Your task to perform on an android device: turn off improve location accuracy Image 0: 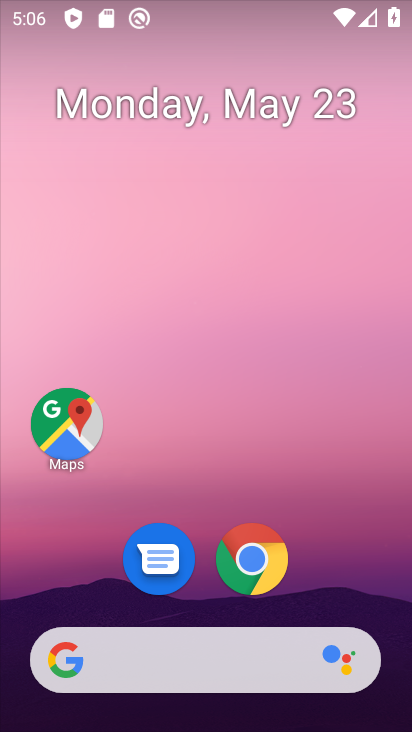
Step 0: drag from (211, 626) to (348, 40)
Your task to perform on an android device: turn off improve location accuracy Image 1: 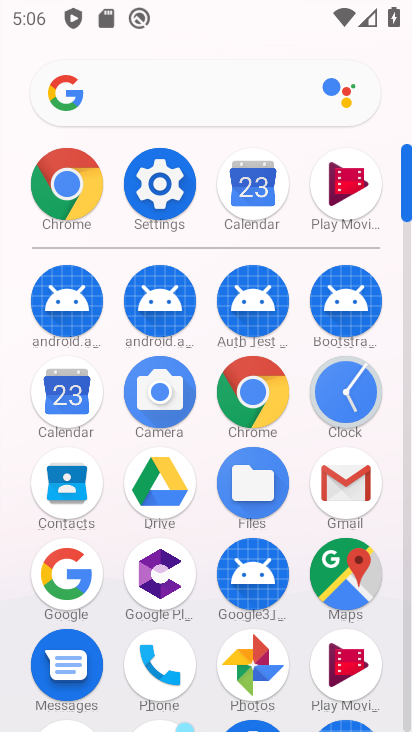
Step 1: click (147, 177)
Your task to perform on an android device: turn off improve location accuracy Image 2: 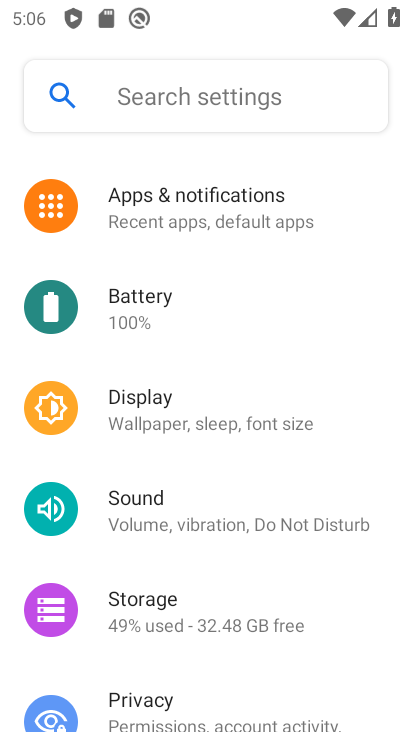
Step 2: drag from (135, 624) to (167, 134)
Your task to perform on an android device: turn off improve location accuracy Image 3: 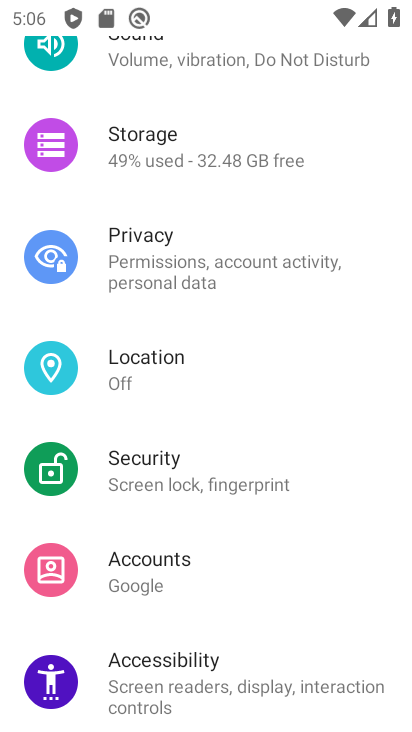
Step 3: click (178, 366)
Your task to perform on an android device: turn off improve location accuracy Image 4: 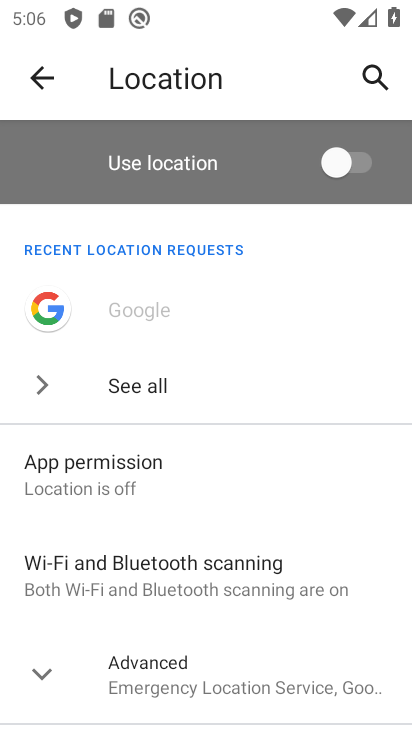
Step 4: drag from (319, 661) to (333, 235)
Your task to perform on an android device: turn off improve location accuracy Image 5: 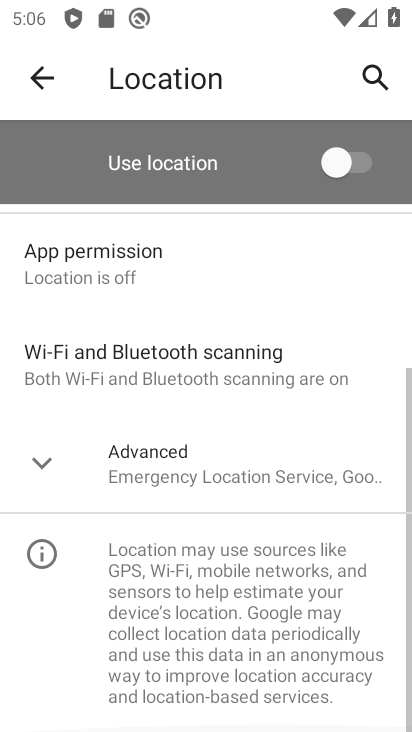
Step 5: click (223, 468)
Your task to perform on an android device: turn off improve location accuracy Image 6: 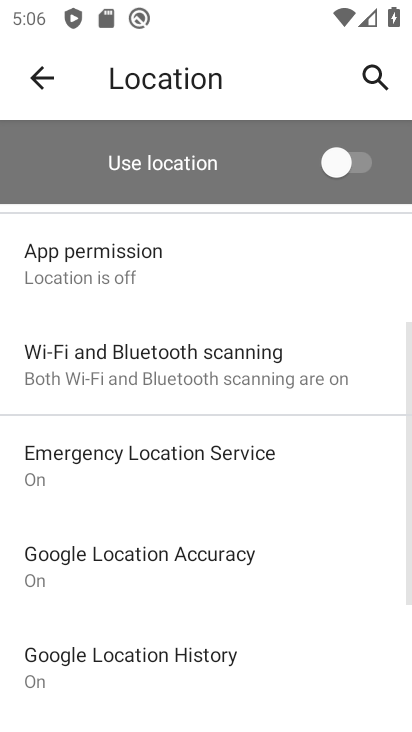
Step 6: click (193, 571)
Your task to perform on an android device: turn off improve location accuracy Image 7: 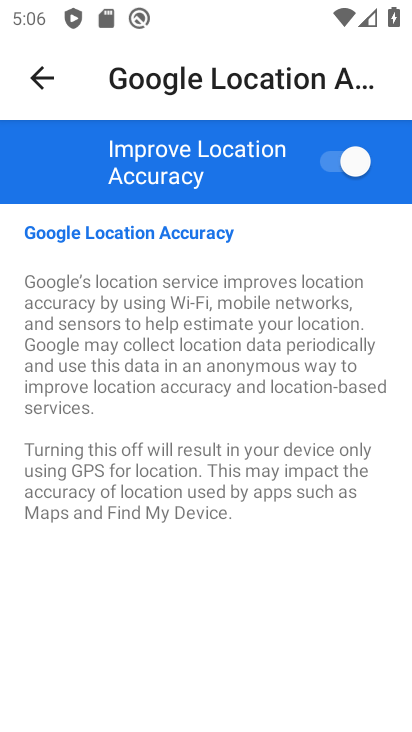
Step 7: click (335, 160)
Your task to perform on an android device: turn off improve location accuracy Image 8: 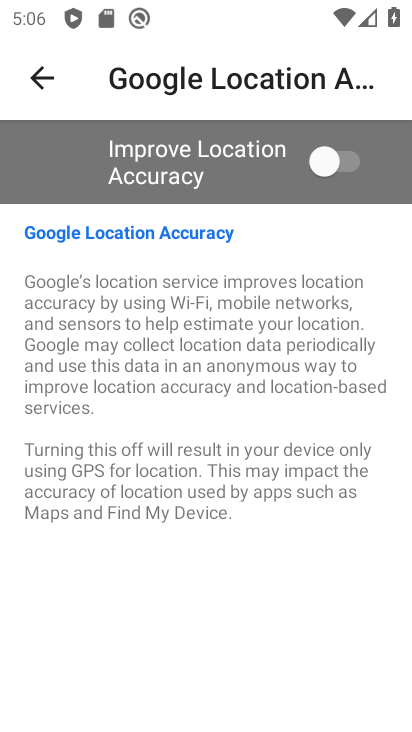
Step 8: task complete